Your task to perform on an android device: turn on the 24-hour format for clock Image 0: 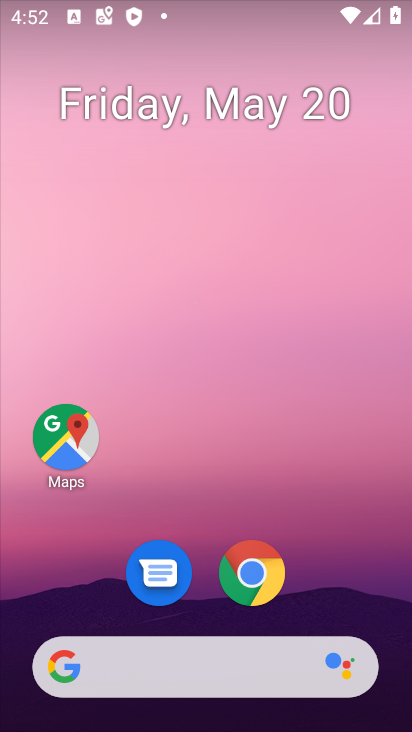
Step 0: drag from (389, 611) to (325, 7)
Your task to perform on an android device: turn on the 24-hour format for clock Image 1: 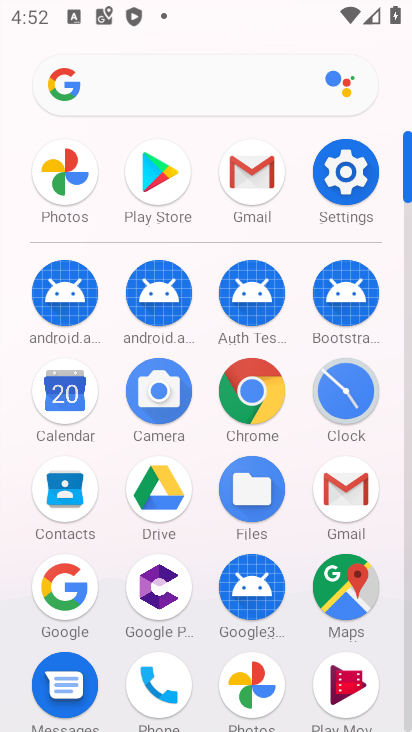
Step 1: click (409, 697)
Your task to perform on an android device: turn on the 24-hour format for clock Image 2: 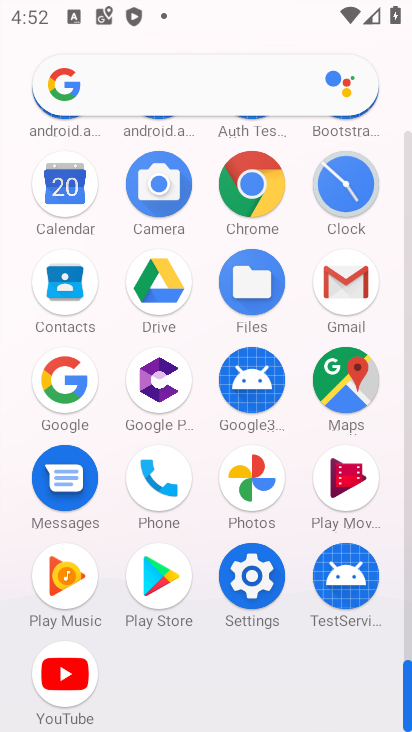
Step 2: click (348, 186)
Your task to perform on an android device: turn on the 24-hour format for clock Image 3: 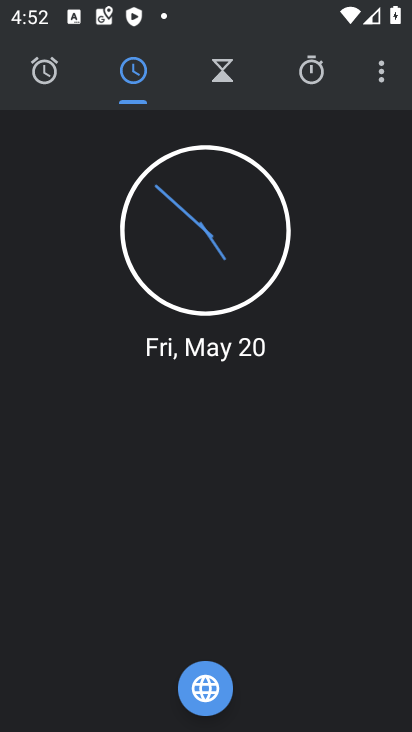
Step 3: click (379, 79)
Your task to perform on an android device: turn on the 24-hour format for clock Image 4: 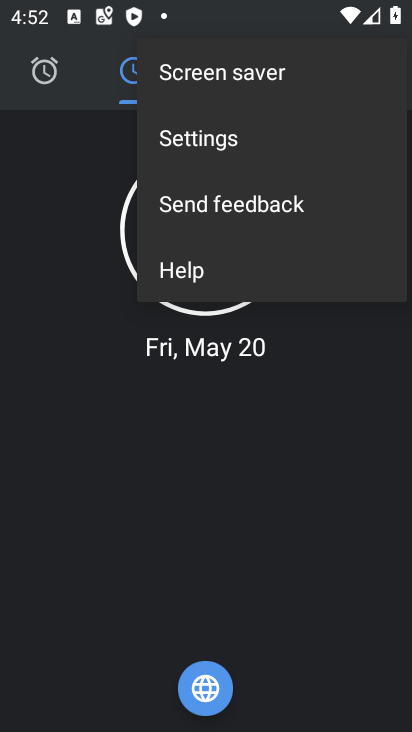
Step 4: click (208, 137)
Your task to perform on an android device: turn on the 24-hour format for clock Image 5: 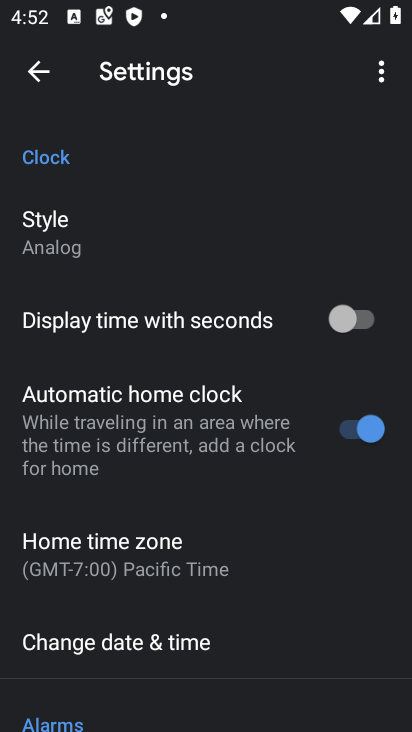
Step 5: drag from (291, 630) to (248, 304)
Your task to perform on an android device: turn on the 24-hour format for clock Image 6: 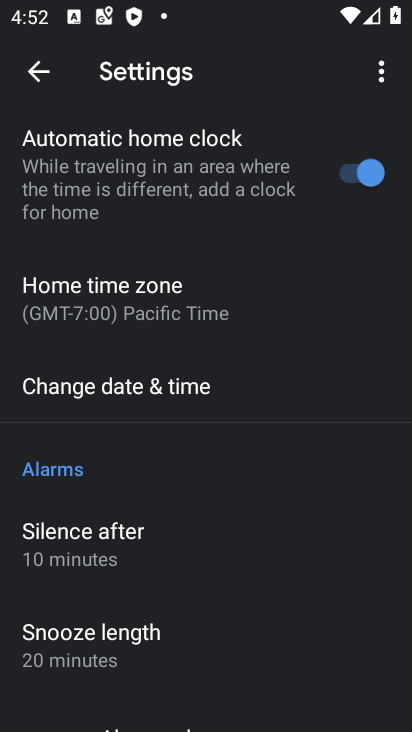
Step 6: click (141, 487)
Your task to perform on an android device: turn on the 24-hour format for clock Image 7: 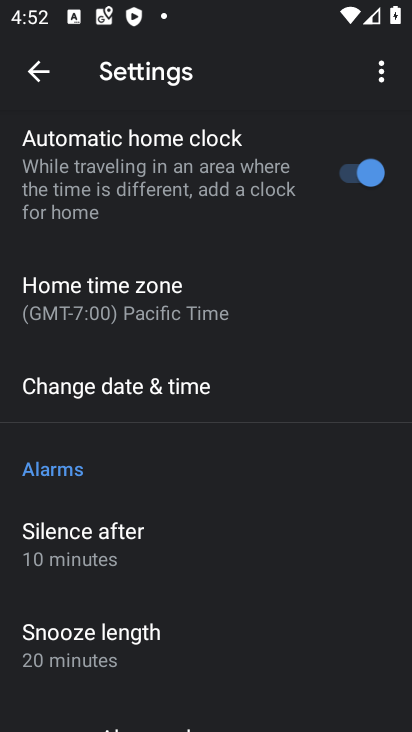
Step 7: click (128, 380)
Your task to perform on an android device: turn on the 24-hour format for clock Image 8: 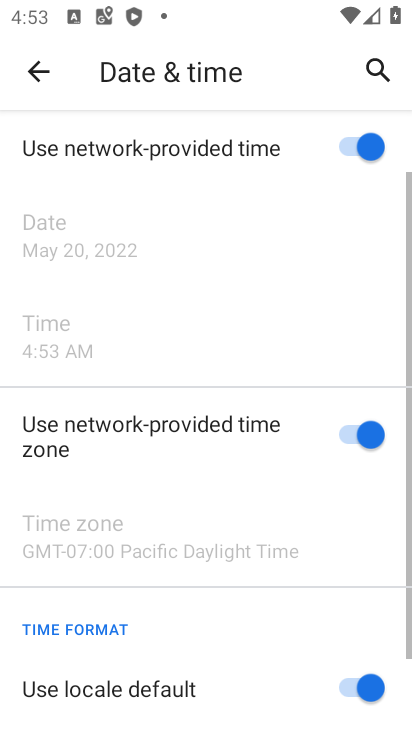
Step 8: drag from (290, 663) to (275, 52)
Your task to perform on an android device: turn on the 24-hour format for clock Image 9: 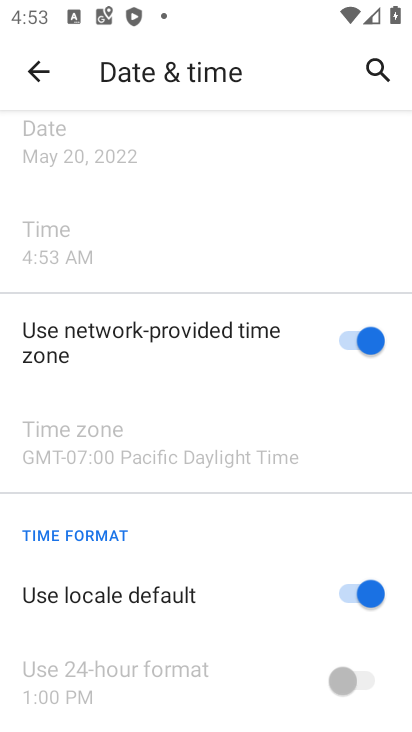
Step 9: click (342, 594)
Your task to perform on an android device: turn on the 24-hour format for clock Image 10: 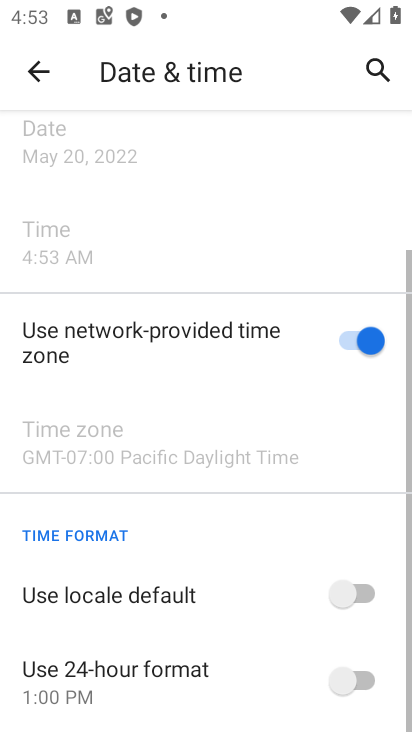
Step 10: click (363, 677)
Your task to perform on an android device: turn on the 24-hour format for clock Image 11: 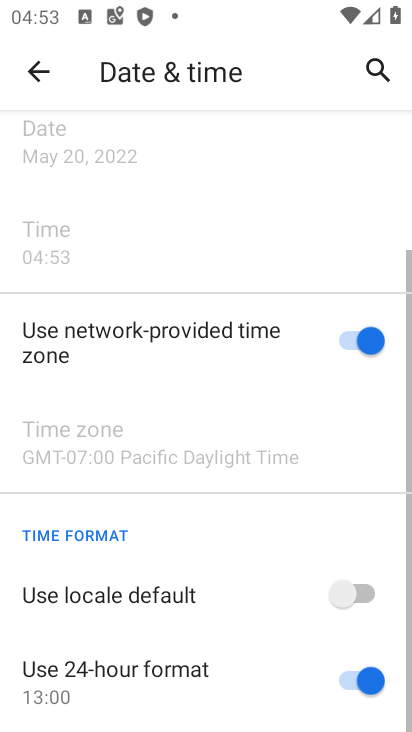
Step 11: task complete